Your task to perform on an android device: turn on wifi Image 0: 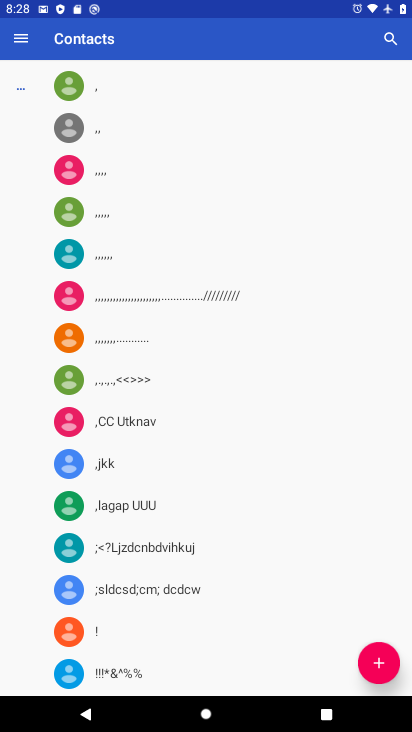
Step 0: press home button
Your task to perform on an android device: turn on wifi Image 1: 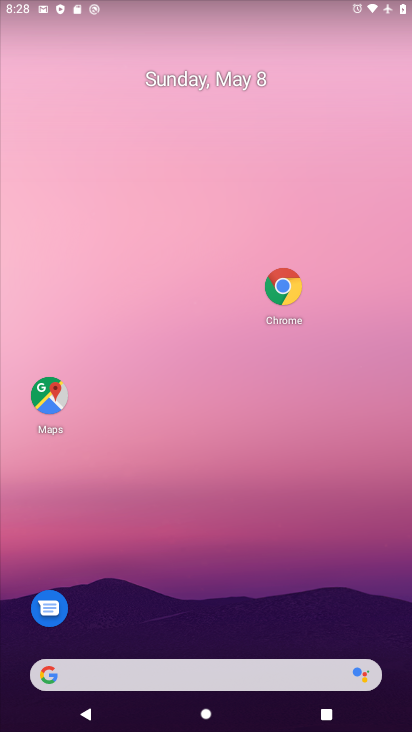
Step 1: drag from (184, 681) to (327, 68)
Your task to perform on an android device: turn on wifi Image 2: 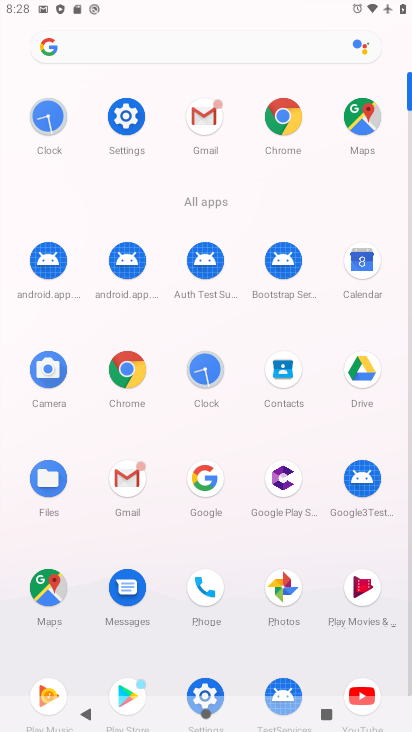
Step 2: click (127, 123)
Your task to perform on an android device: turn on wifi Image 3: 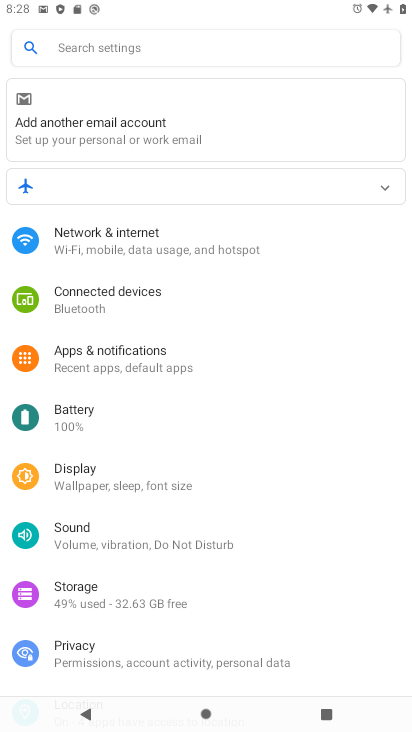
Step 3: click (148, 233)
Your task to perform on an android device: turn on wifi Image 4: 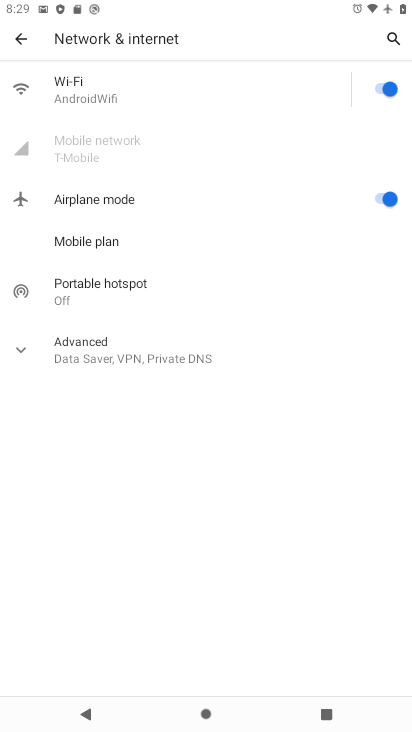
Step 4: task complete